Your task to perform on an android device: add a contact in the contacts app Image 0: 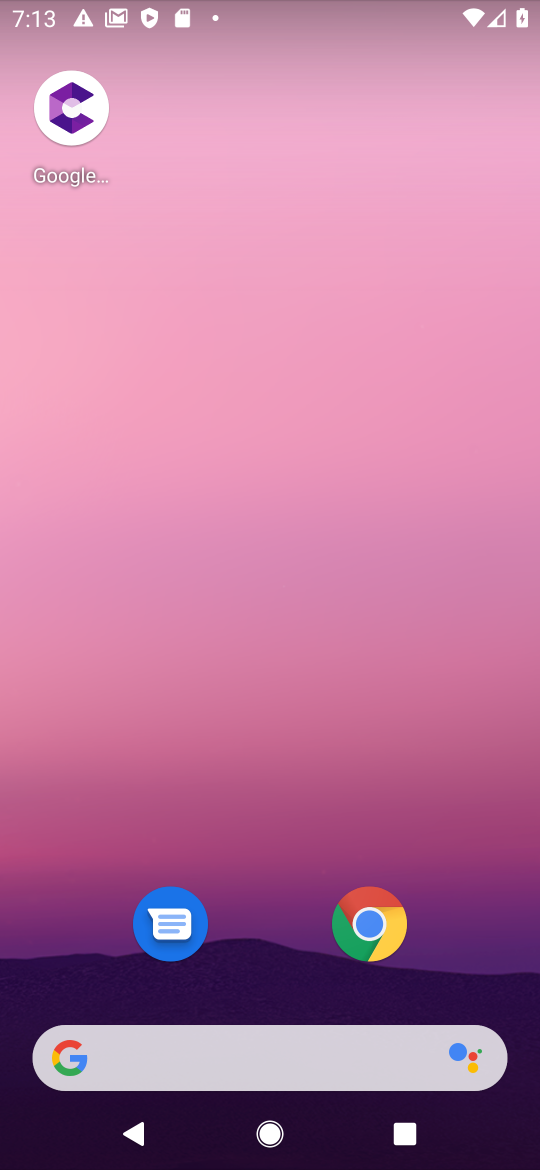
Step 0: drag from (235, 1046) to (245, 449)
Your task to perform on an android device: add a contact in the contacts app Image 1: 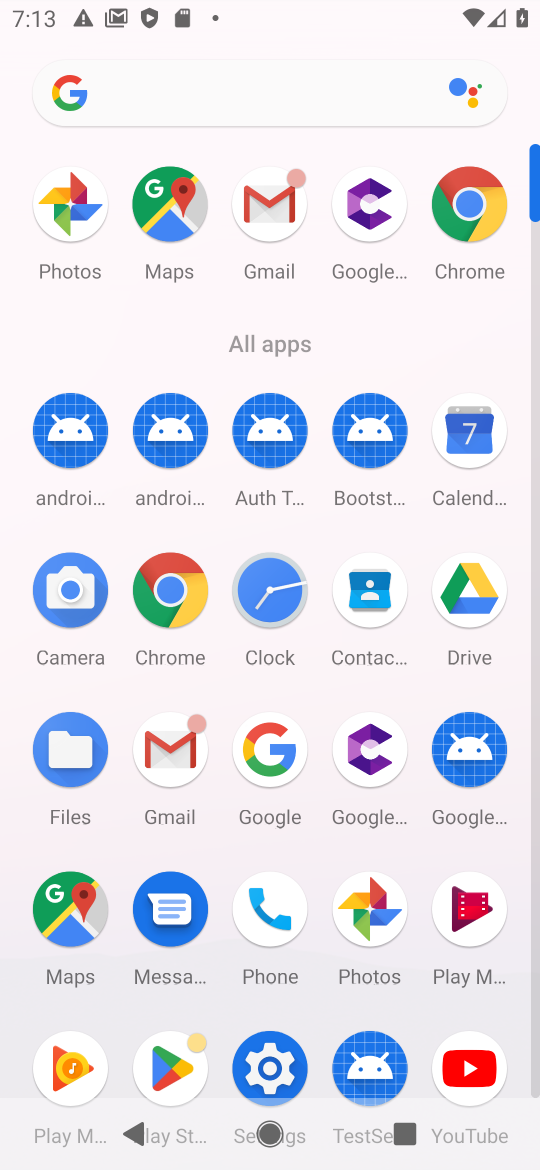
Step 1: click (251, 920)
Your task to perform on an android device: add a contact in the contacts app Image 2: 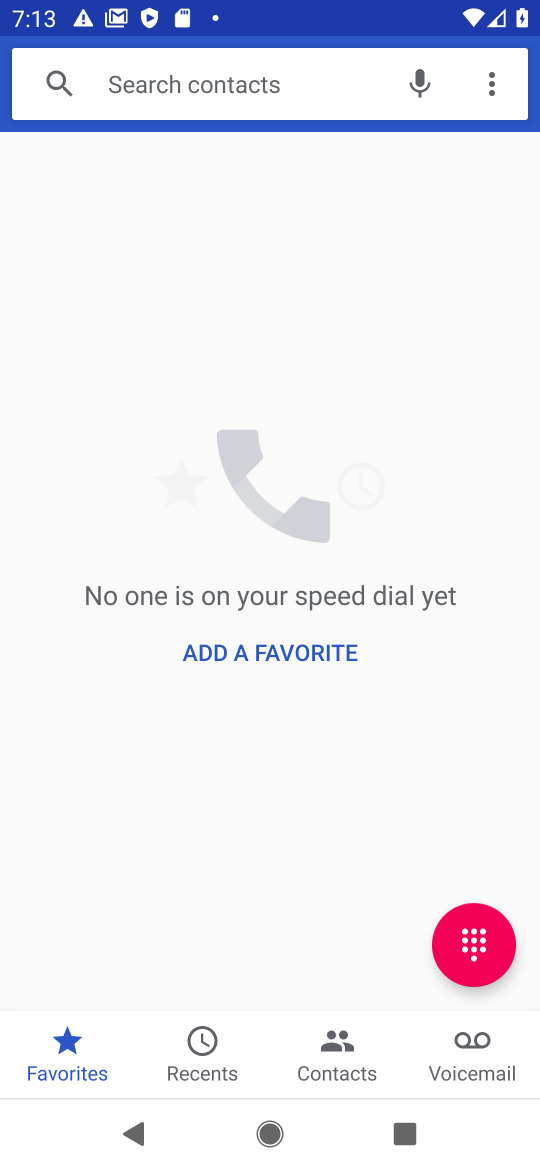
Step 2: click (343, 1054)
Your task to perform on an android device: add a contact in the contacts app Image 3: 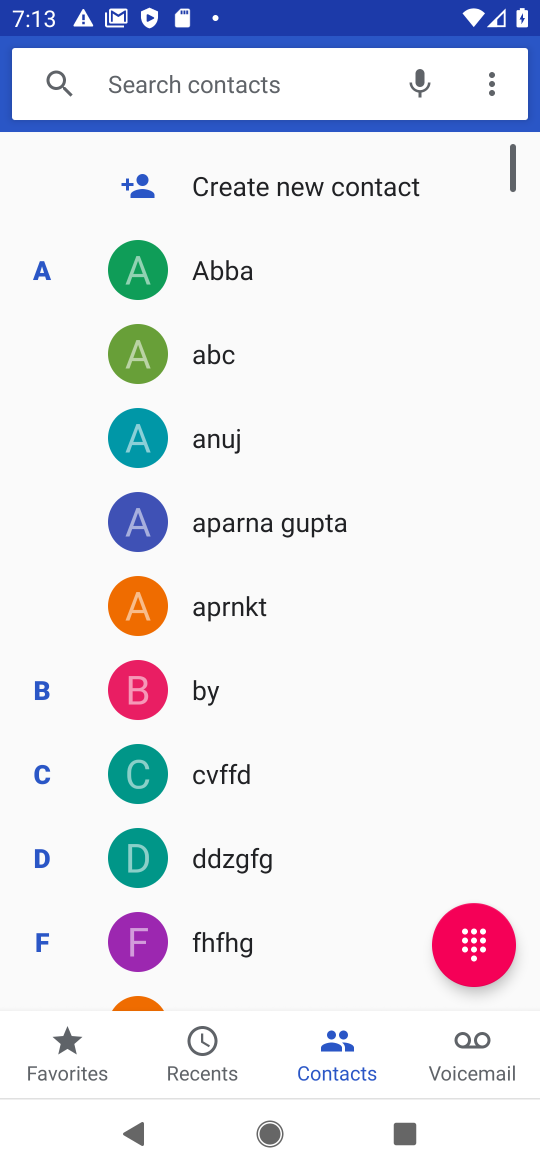
Step 3: click (266, 195)
Your task to perform on an android device: add a contact in the contacts app Image 4: 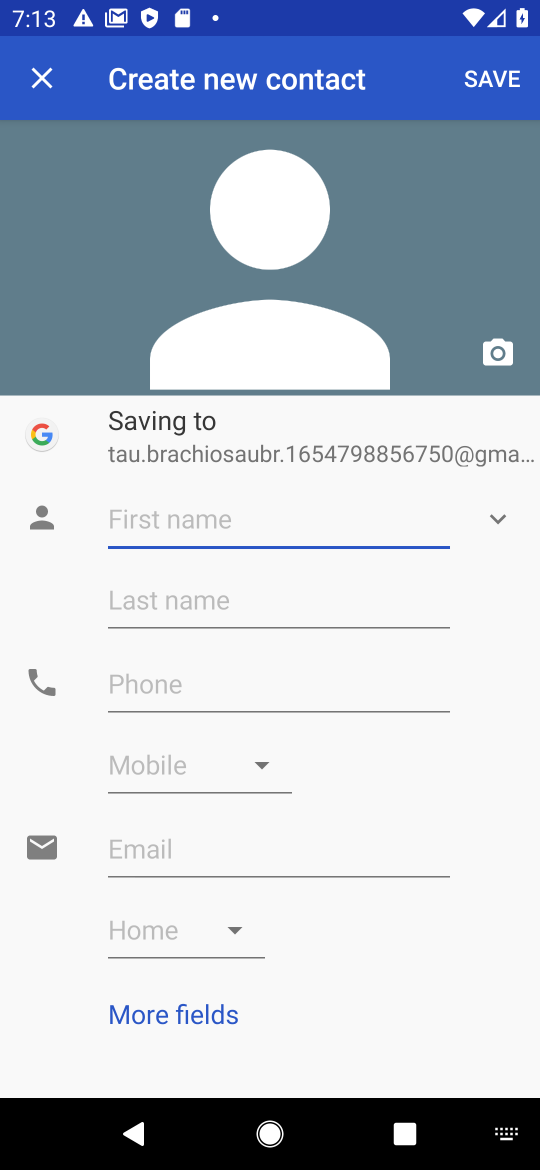
Step 4: click (176, 523)
Your task to perform on an android device: add a contact in the contacts app Image 5: 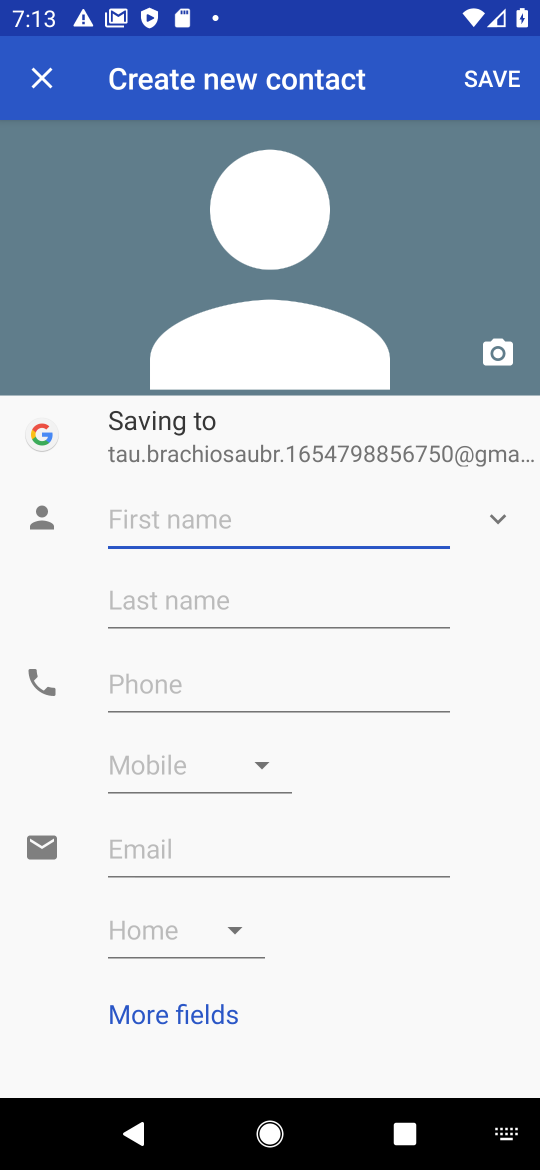
Step 5: click (506, 1134)
Your task to perform on an android device: add a contact in the contacts app Image 6: 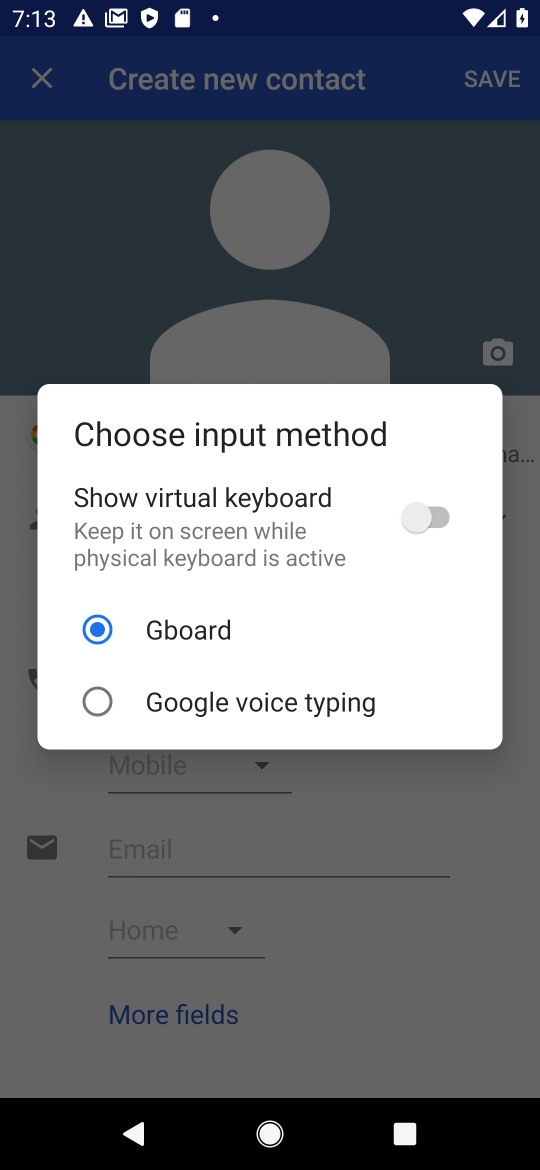
Step 6: click (421, 515)
Your task to perform on an android device: add a contact in the contacts app Image 7: 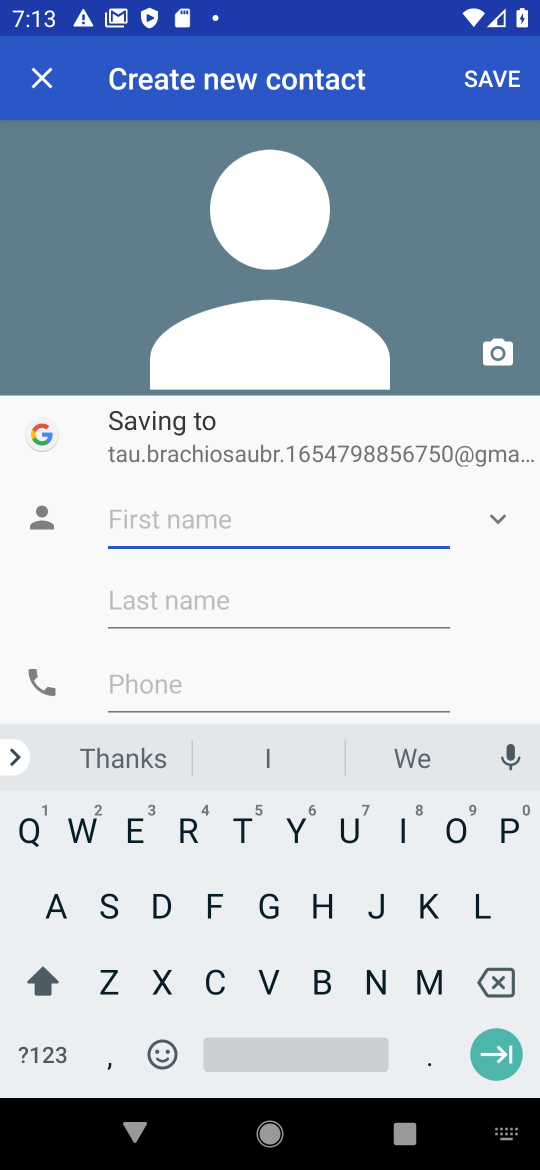
Step 7: click (204, 916)
Your task to perform on an android device: add a contact in the contacts app Image 8: 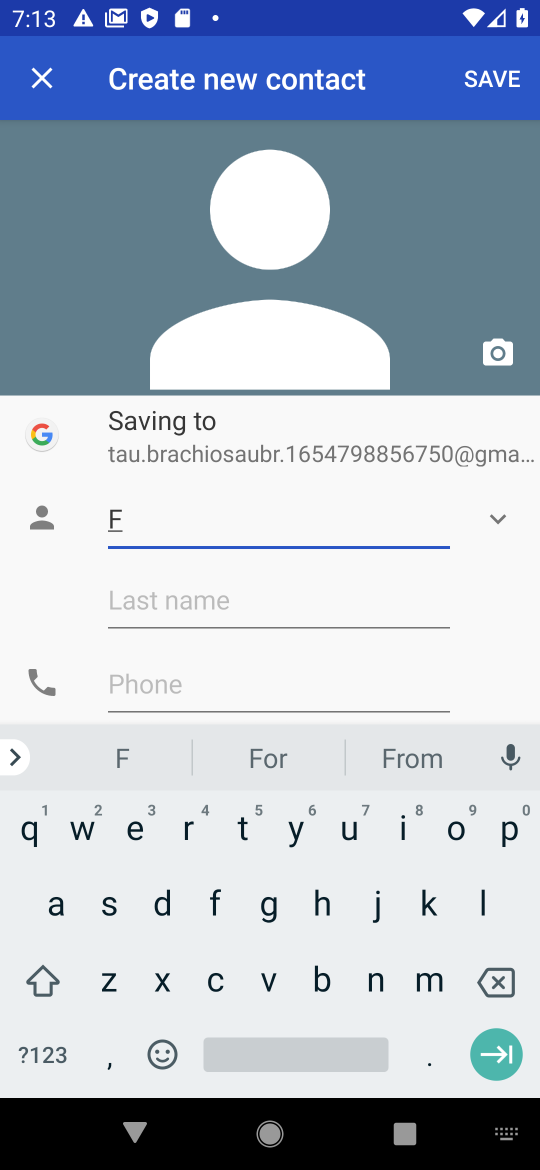
Step 8: click (363, 981)
Your task to perform on an android device: add a contact in the contacts app Image 9: 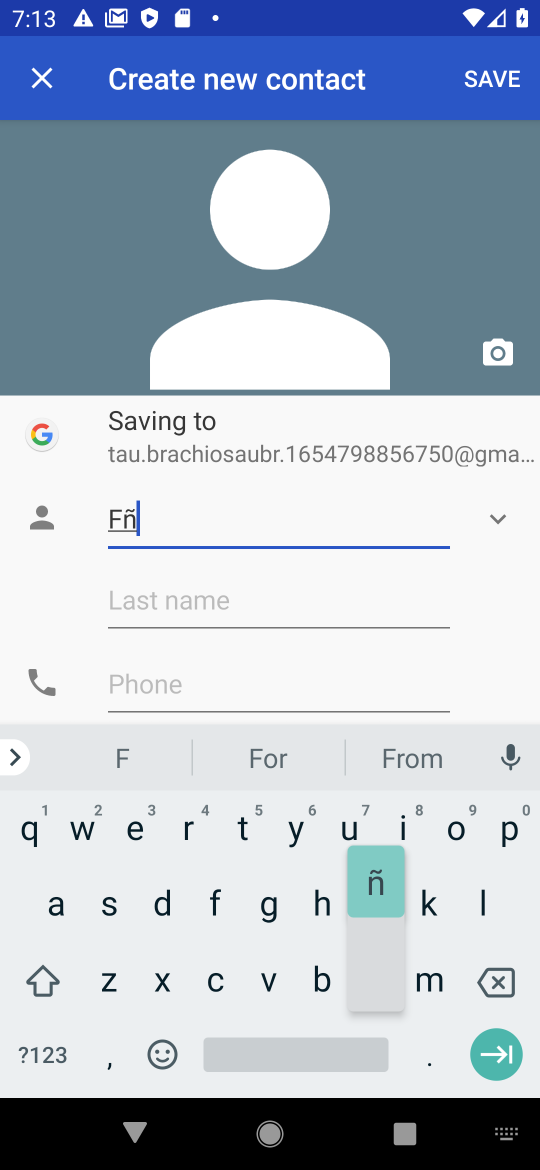
Step 9: click (171, 671)
Your task to perform on an android device: add a contact in the contacts app Image 10: 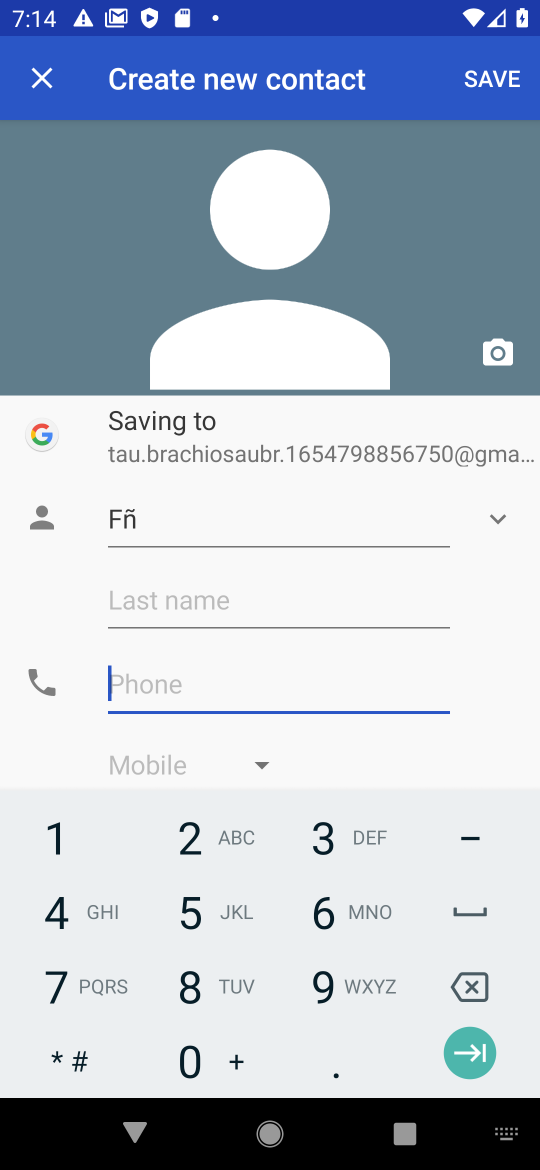
Step 10: click (225, 937)
Your task to perform on an android device: add a contact in the contacts app Image 11: 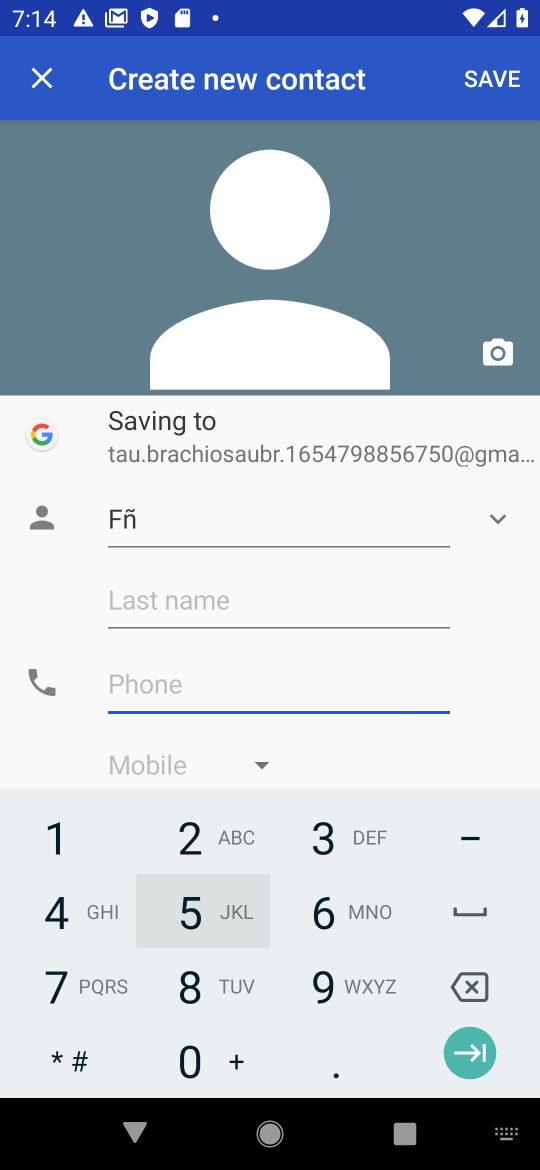
Step 11: click (169, 1041)
Your task to perform on an android device: add a contact in the contacts app Image 12: 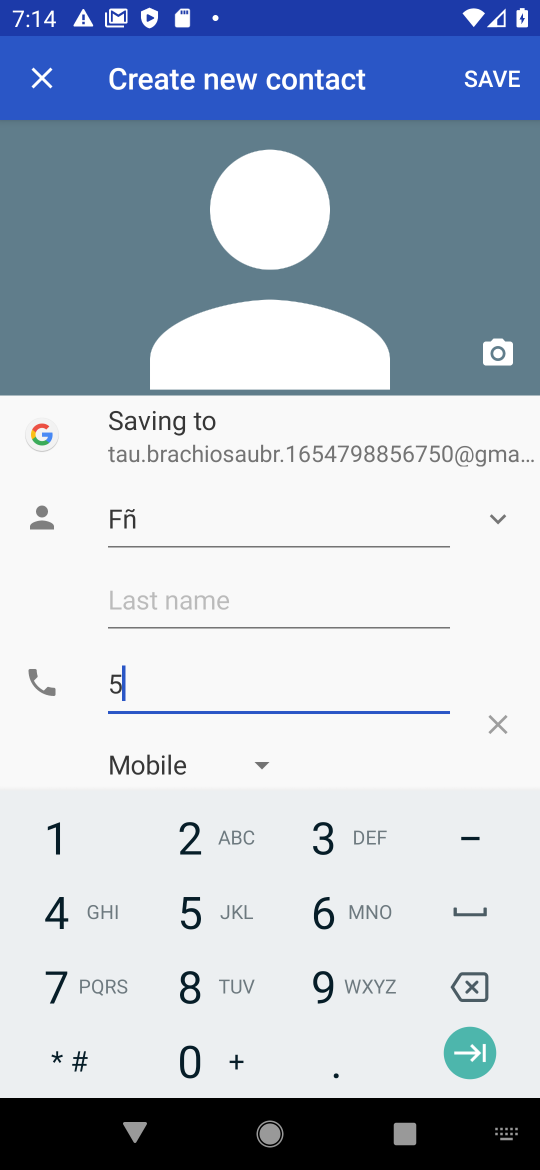
Step 12: click (225, 965)
Your task to perform on an android device: add a contact in the contacts app Image 13: 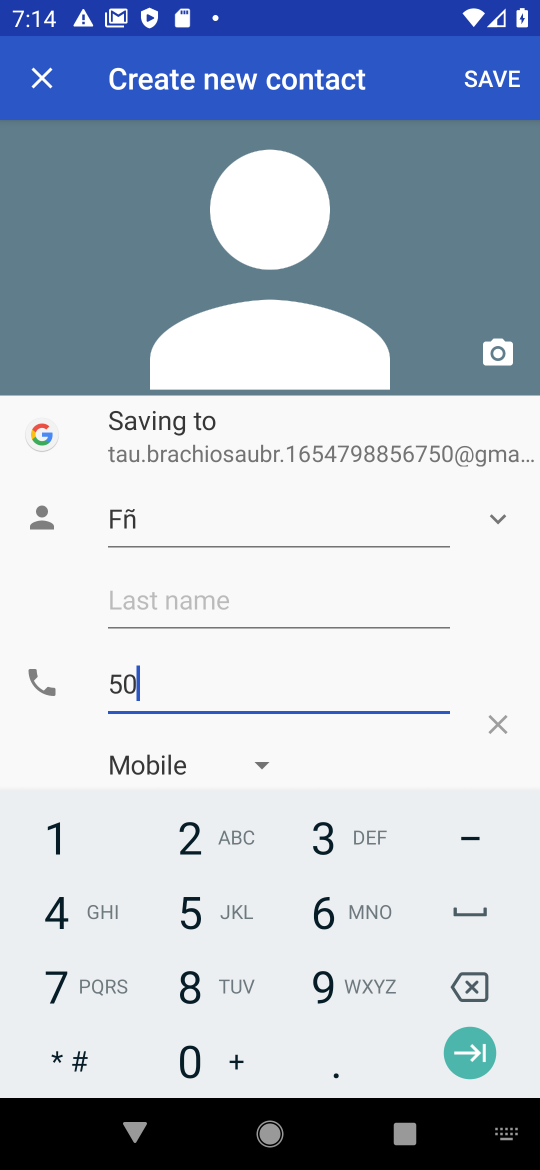
Step 13: click (75, 938)
Your task to perform on an android device: add a contact in the contacts app Image 14: 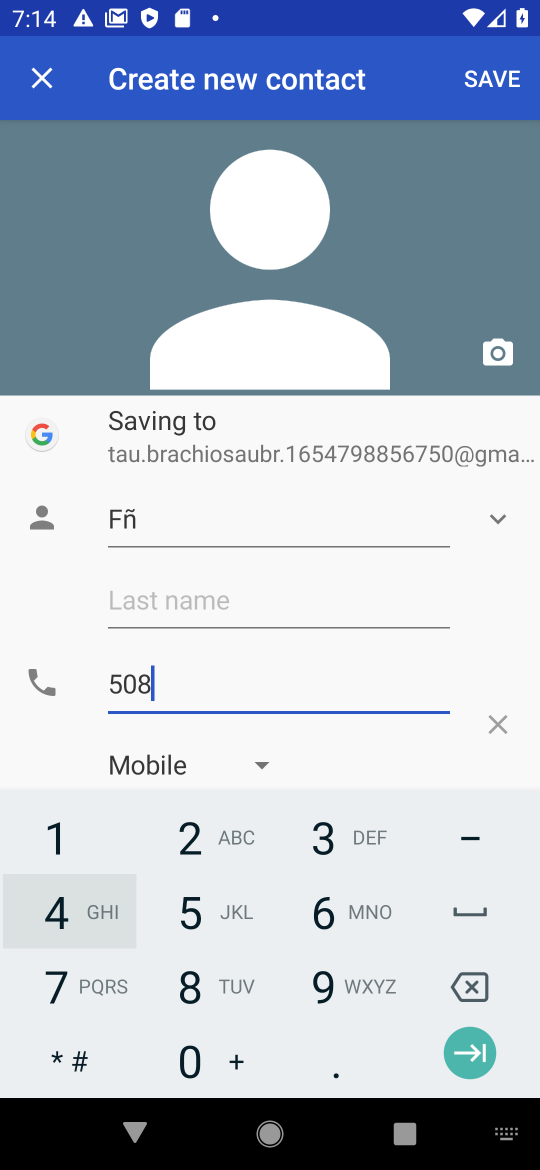
Step 14: click (88, 871)
Your task to perform on an android device: add a contact in the contacts app Image 15: 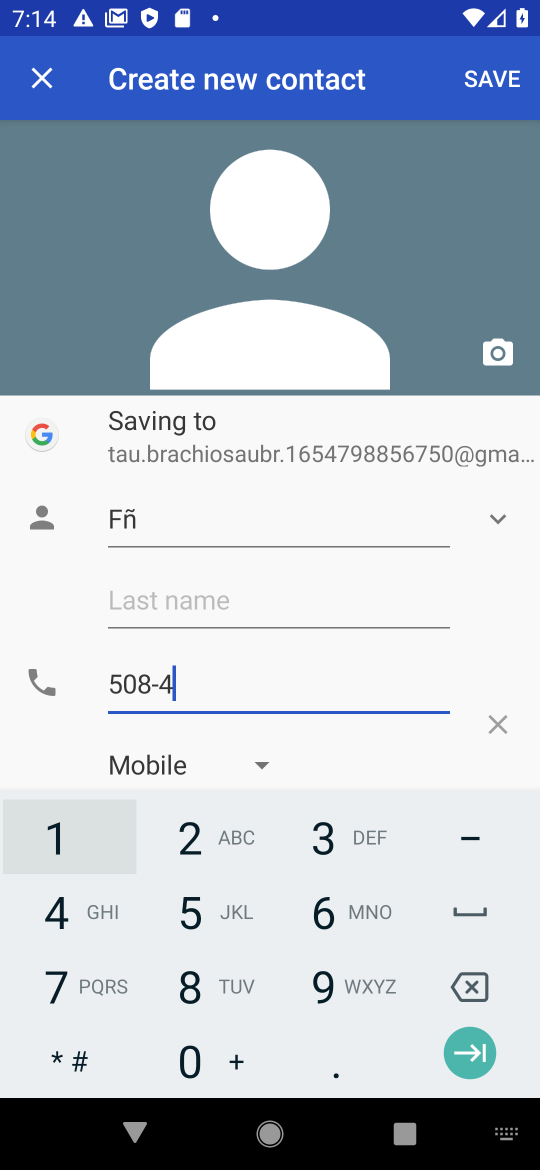
Step 15: click (185, 863)
Your task to perform on an android device: add a contact in the contacts app Image 16: 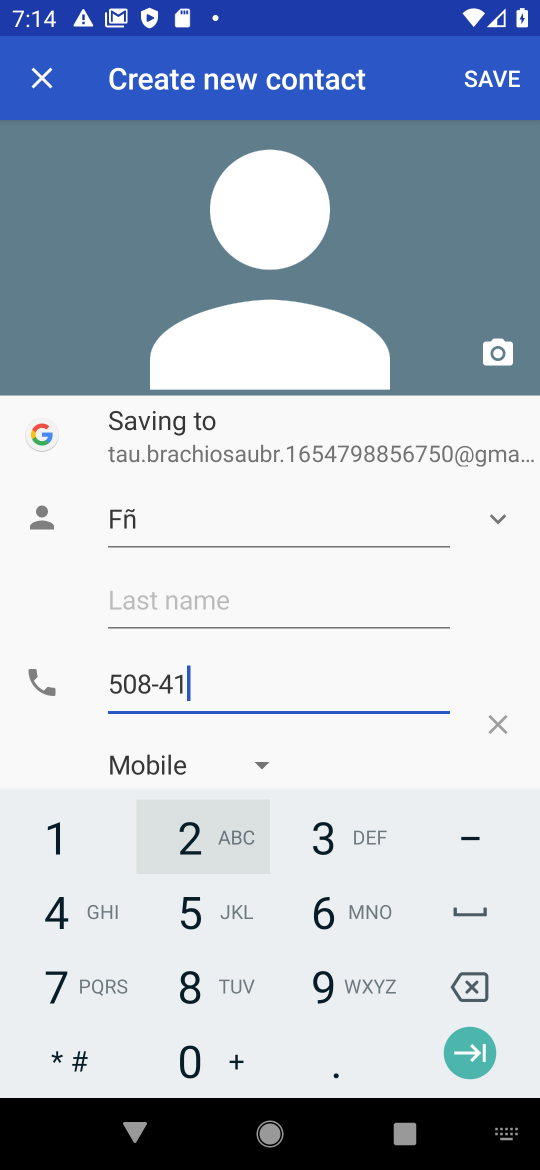
Step 16: click (183, 843)
Your task to perform on an android device: add a contact in the contacts app Image 17: 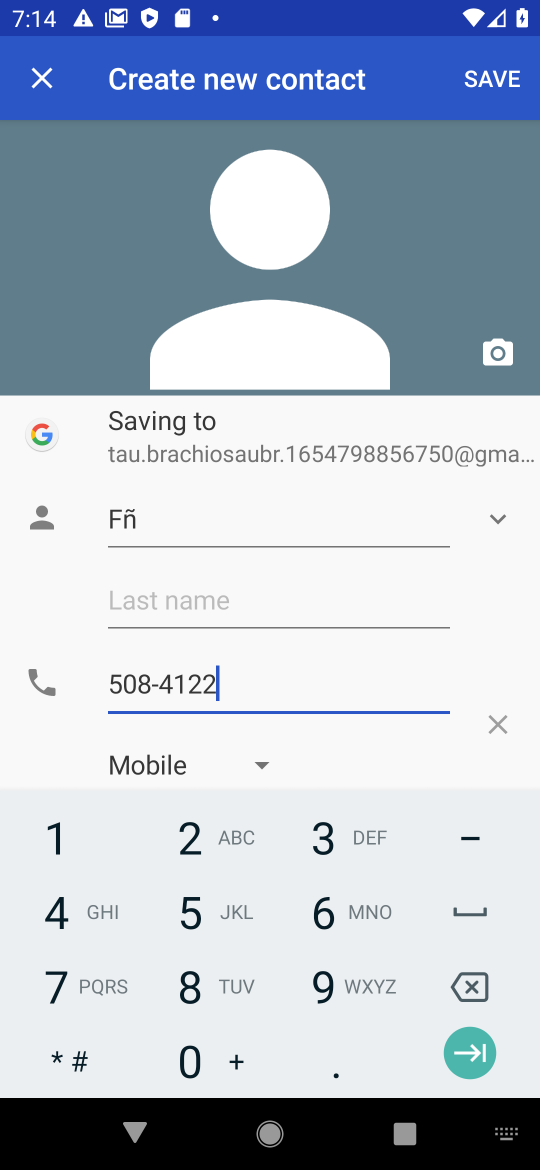
Step 17: click (313, 986)
Your task to perform on an android device: add a contact in the contacts app Image 18: 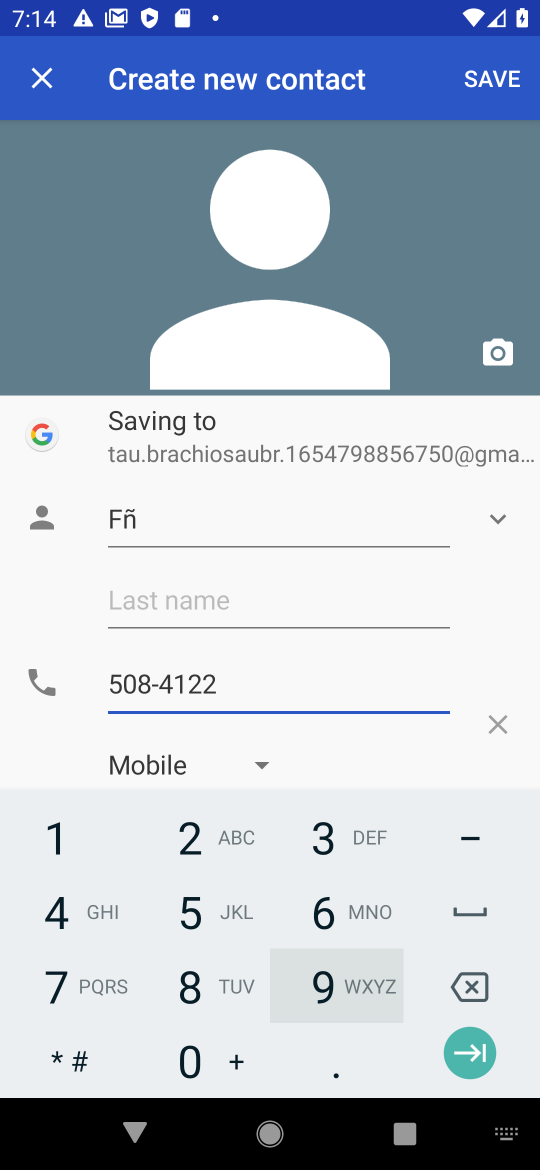
Step 18: click (309, 920)
Your task to perform on an android device: add a contact in the contacts app Image 19: 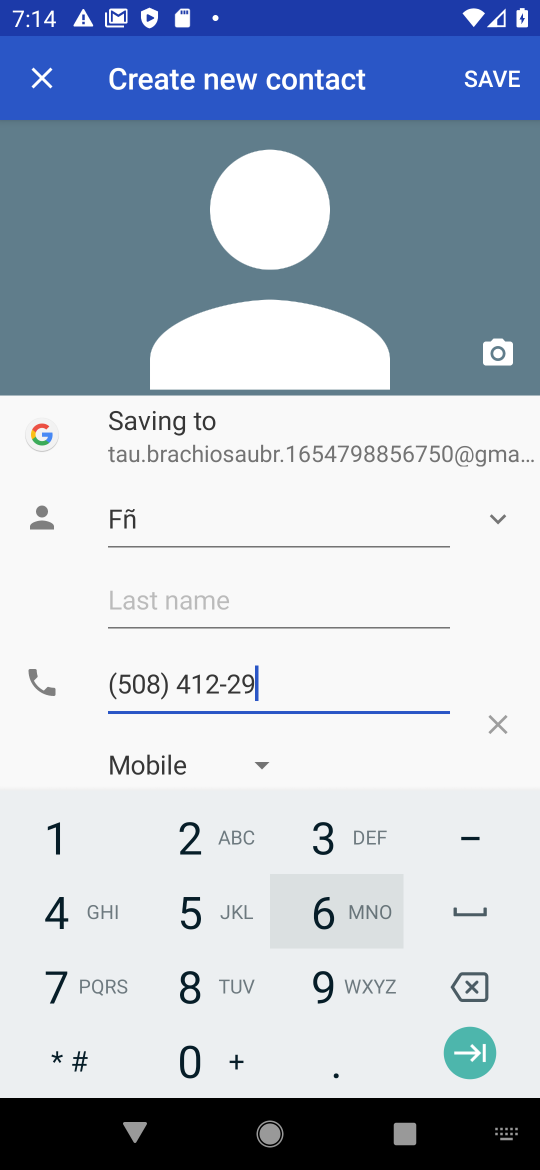
Step 19: click (324, 816)
Your task to perform on an android device: add a contact in the contacts app Image 20: 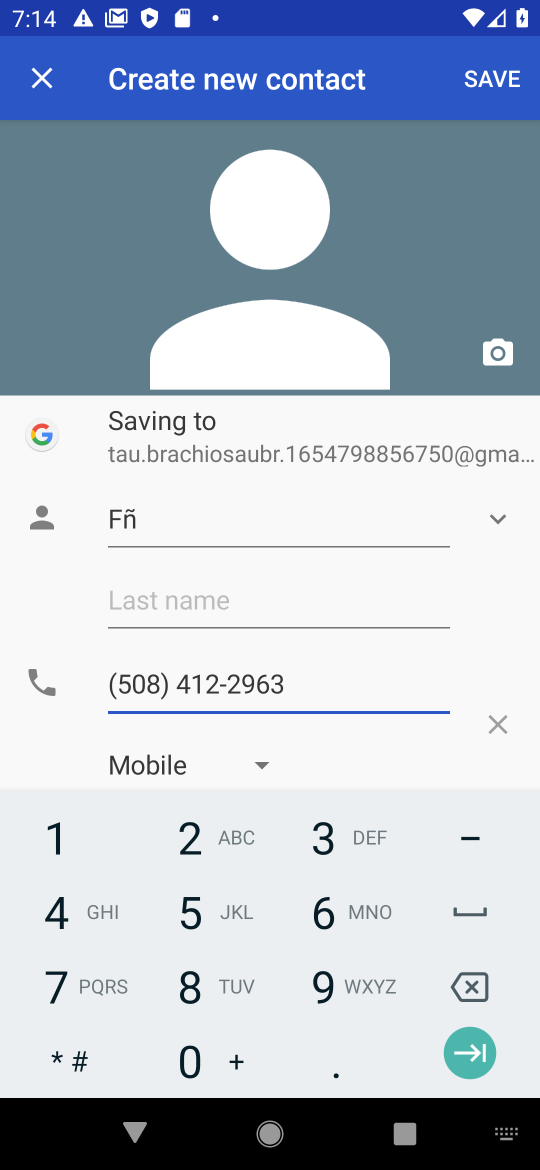
Step 20: click (485, 87)
Your task to perform on an android device: add a contact in the contacts app Image 21: 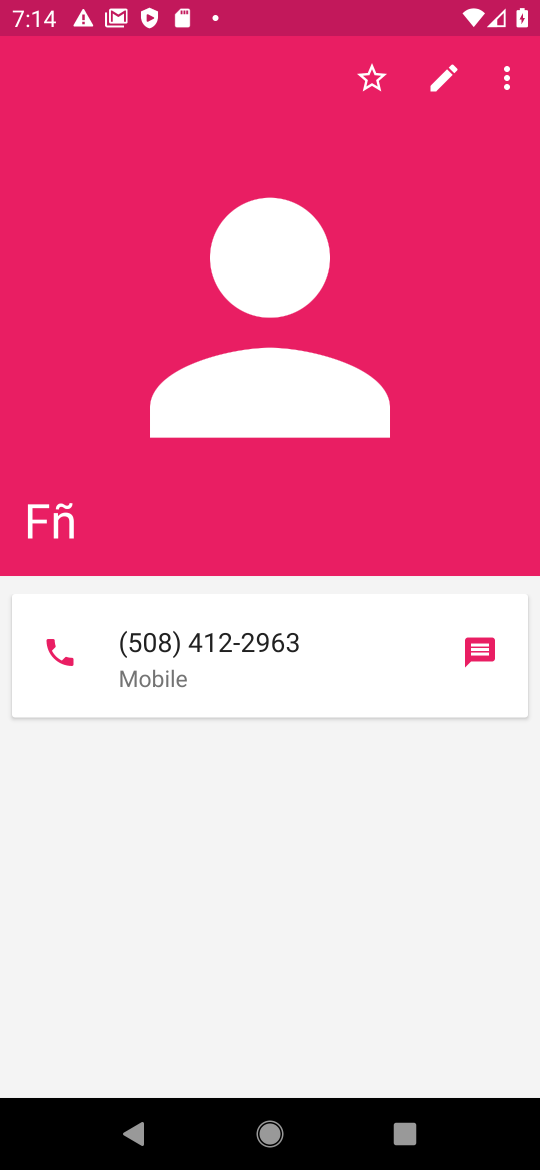
Step 21: task complete